Your task to perform on an android device: Open Google Chrome and open the bookmarks view Image 0: 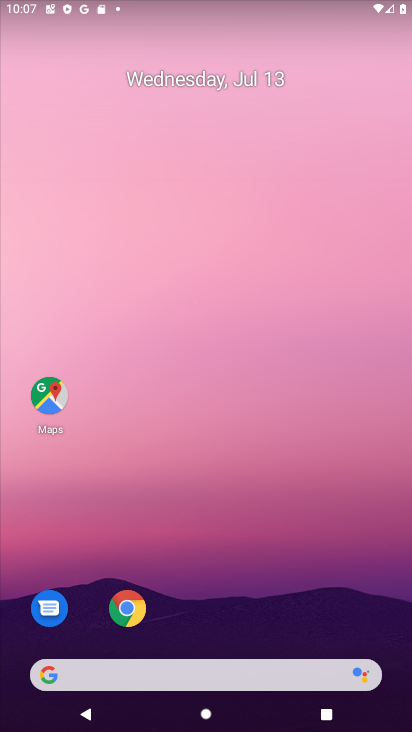
Step 0: click (127, 607)
Your task to perform on an android device: Open Google Chrome and open the bookmarks view Image 1: 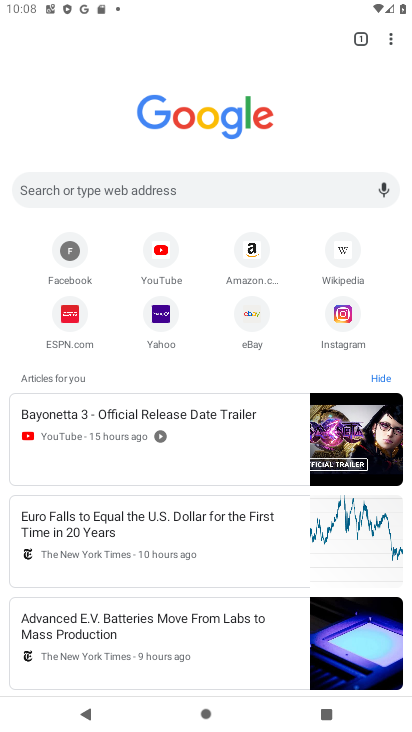
Step 1: click (389, 38)
Your task to perform on an android device: Open Google Chrome and open the bookmarks view Image 2: 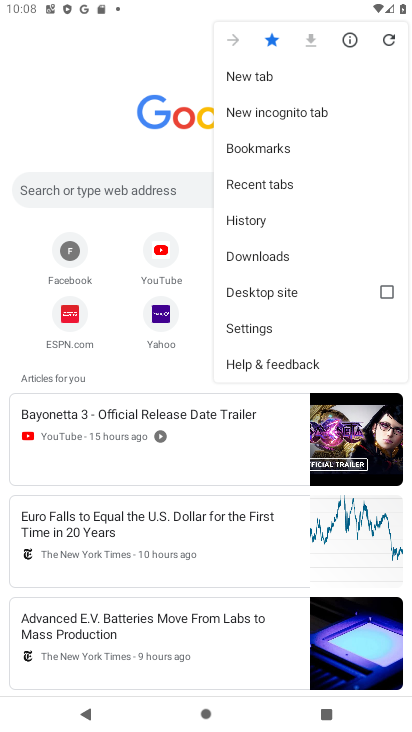
Step 2: click (268, 153)
Your task to perform on an android device: Open Google Chrome and open the bookmarks view Image 3: 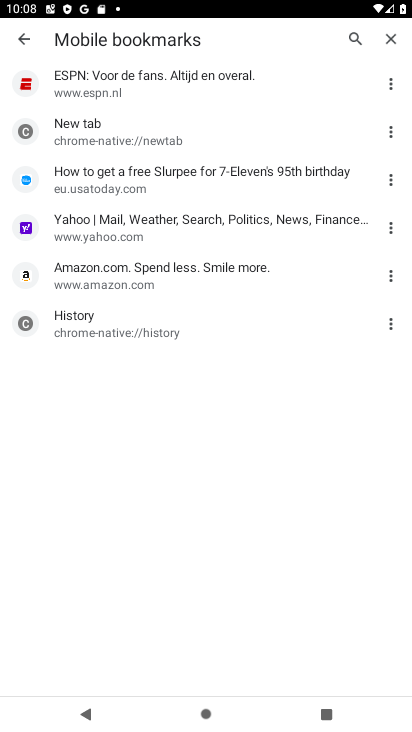
Step 3: task complete